Your task to perform on an android device: turn notification dots on Image 0: 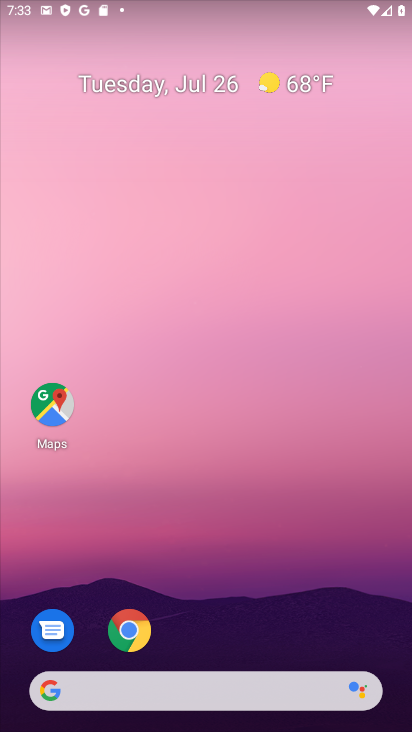
Step 0: press home button
Your task to perform on an android device: turn notification dots on Image 1: 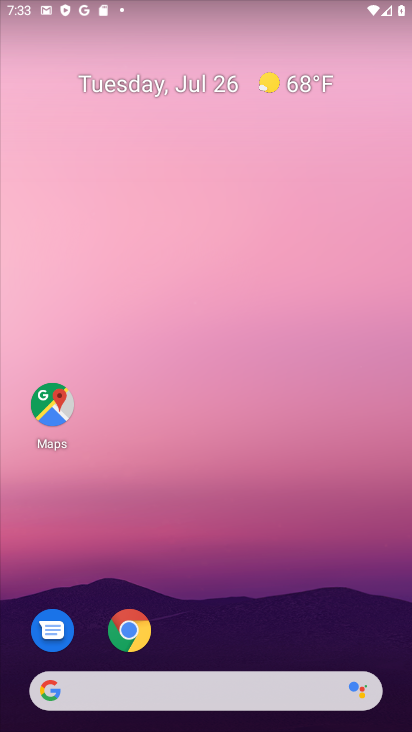
Step 1: drag from (328, 619) to (330, 37)
Your task to perform on an android device: turn notification dots on Image 2: 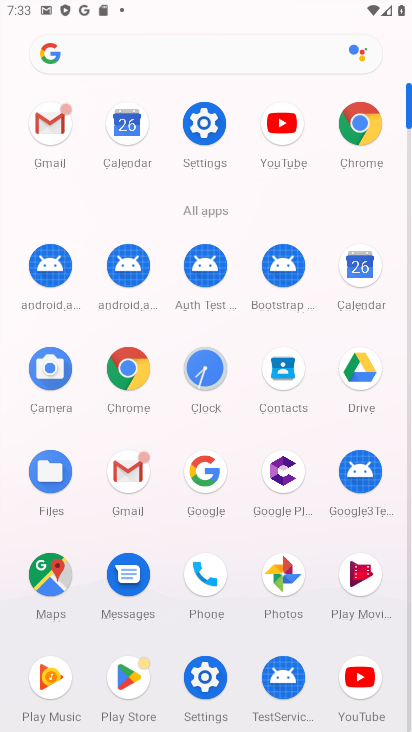
Step 2: click (210, 137)
Your task to perform on an android device: turn notification dots on Image 3: 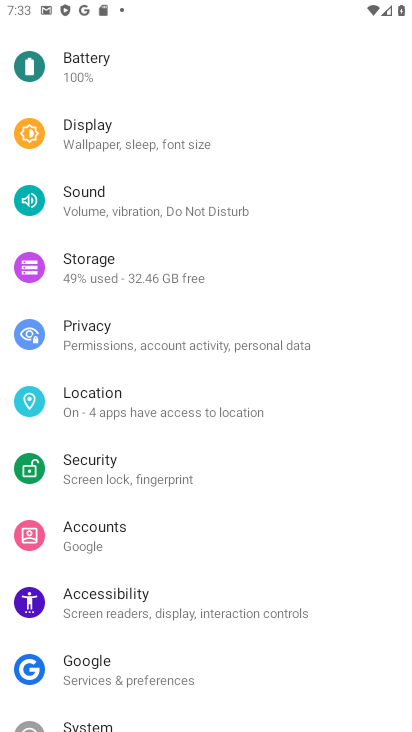
Step 3: drag from (374, 385) to (369, 308)
Your task to perform on an android device: turn notification dots on Image 4: 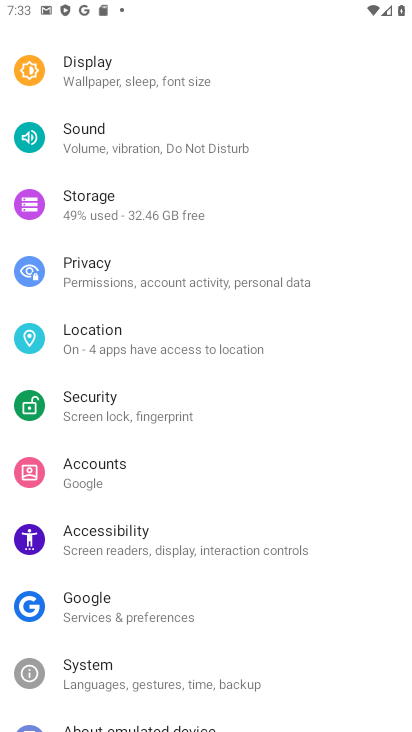
Step 4: drag from (332, 413) to (336, 341)
Your task to perform on an android device: turn notification dots on Image 5: 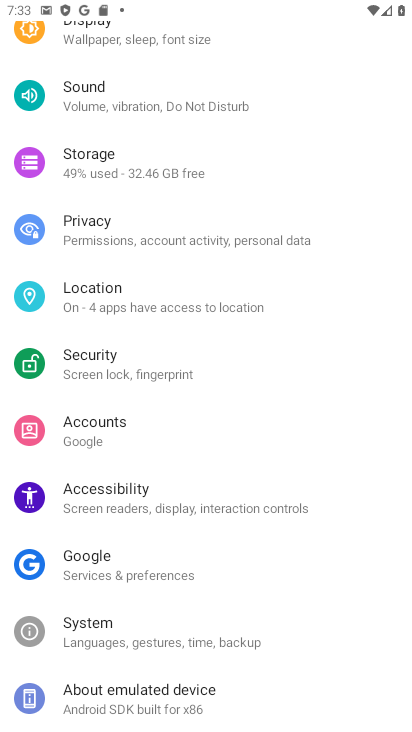
Step 5: drag from (344, 225) to (337, 303)
Your task to perform on an android device: turn notification dots on Image 6: 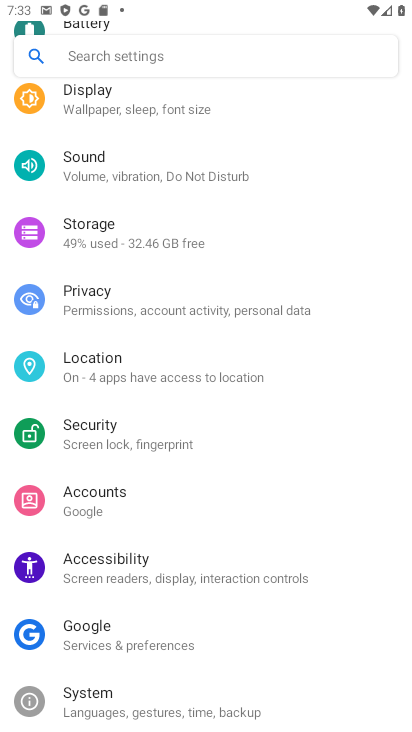
Step 6: drag from (336, 153) to (336, 265)
Your task to perform on an android device: turn notification dots on Image 7: 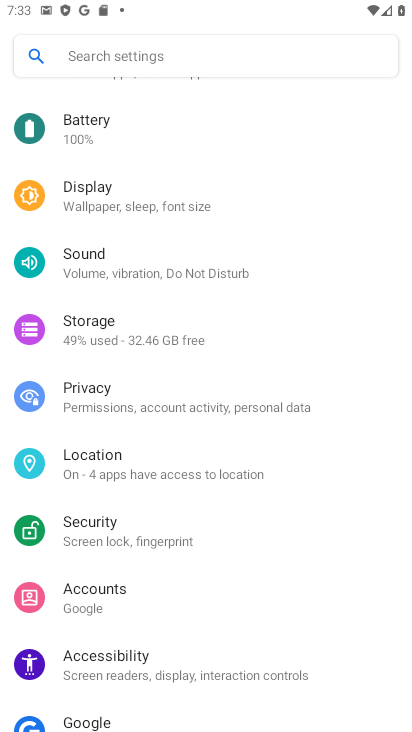
Step 7: drag from (339, 195) to (353, 286)
Your task to perform on an android device: turn notification dots on Image 8: 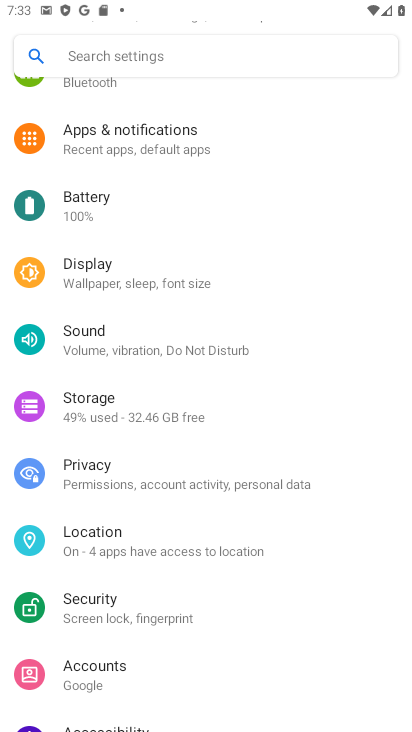
Step 8: drag from (354, 167) to (353, 310)
Your task to perform on an android device: turn notification dots on Image 9: 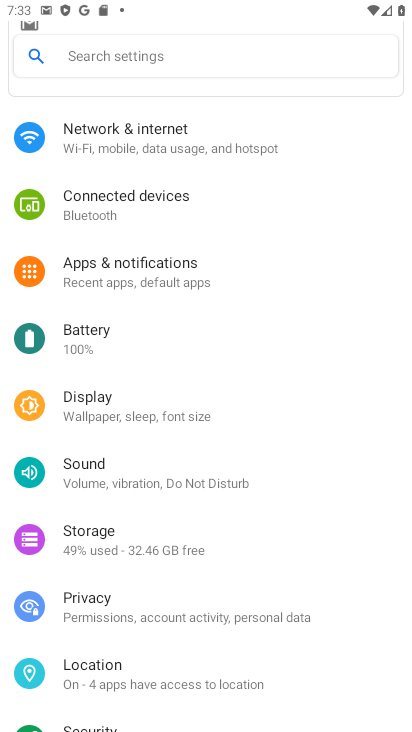
Step 9: drag from (330, 154) to (327, 338)
Your task to perform on an android device: turn notification dots on Image 10: 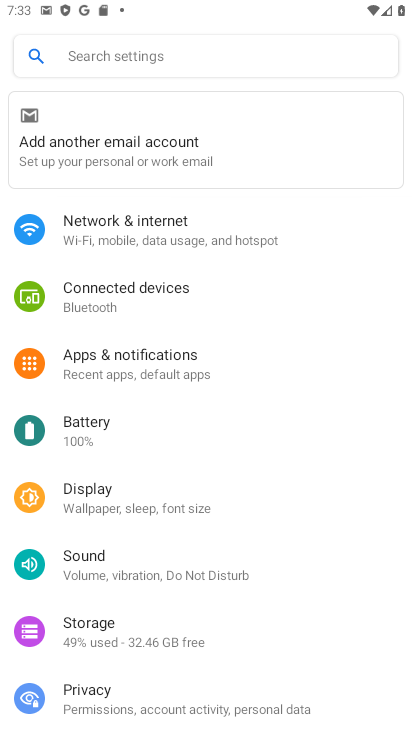
Step 10: click (267, 356)
Your task to perform on an android device: turn notification dots on Image 11: 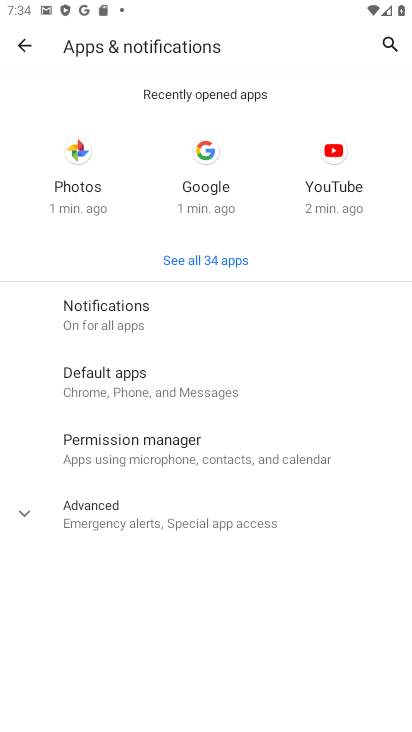
Step 11: click (226, 315)
Your task to perform on an android device: turn notification dots on Image 12: 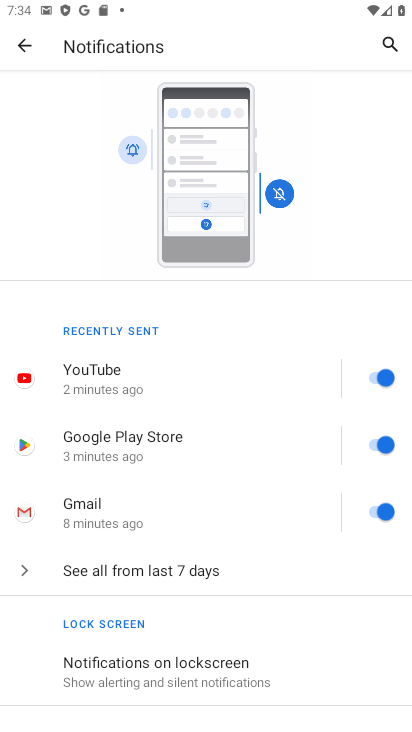
Step 12: drag from (268, 443) to (272, 380)
Your task to perform on an android device: turn notification dots on Image 13: 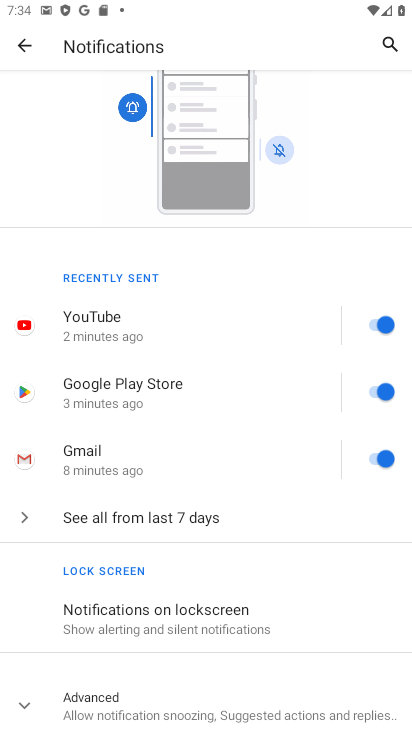
Step 13: drag from (273, 476) to (279, 389)
Your task to perform on an android device: turn notification dots on Image 14: 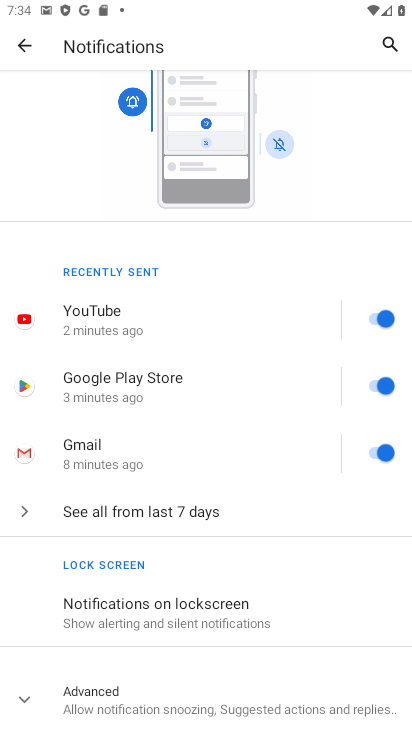
Step 14: click (272, 672)
Your task to perform on an android device: turn notification dots on Image 15: 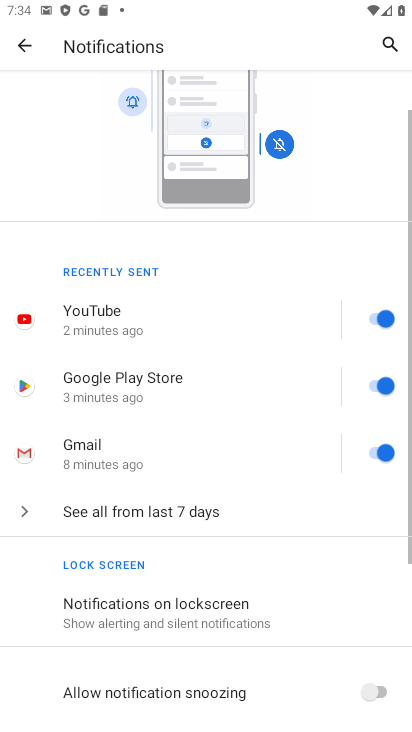
Step 15: task complete